Your task to perform on an android device: Search for sushi restaurants on Maps Image 0: 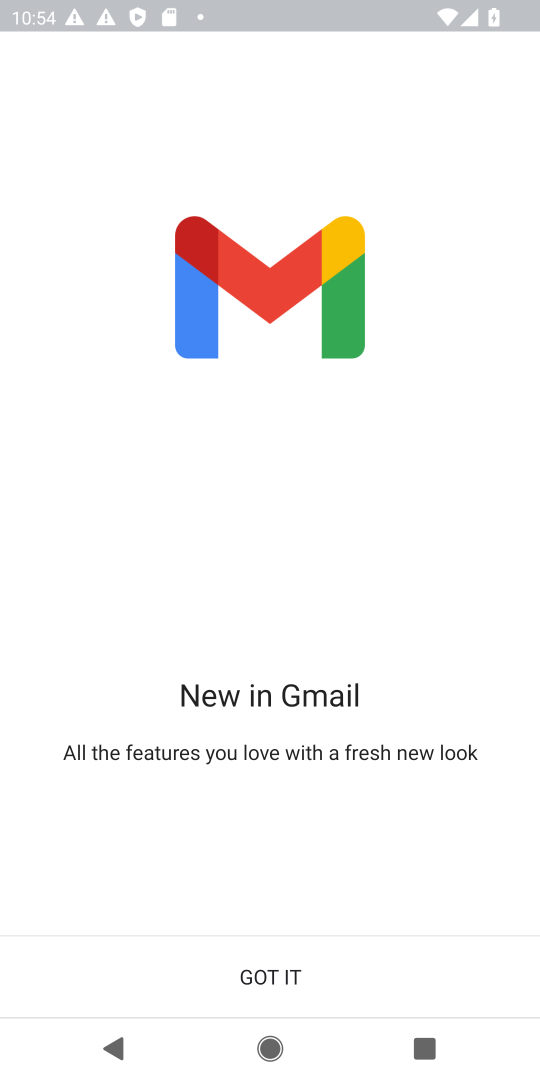
Step 0: press home button
Your task to perform on an android device: Search for sushi restaurants on Maps Image 1: 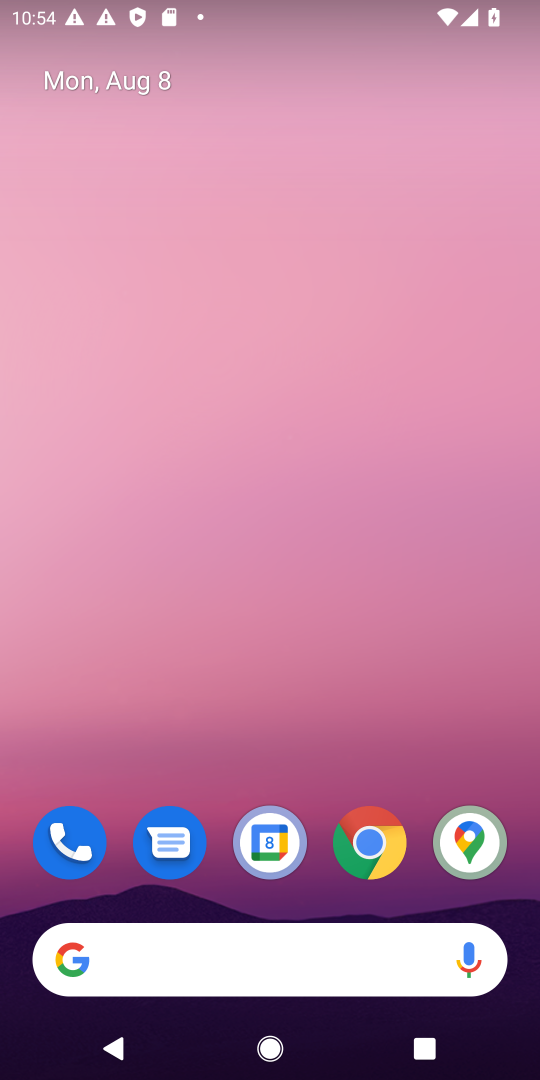
Step 1: click (440, 844)
Your task to perform on an android device: Search for sushi restaurants on Maps Image 2: 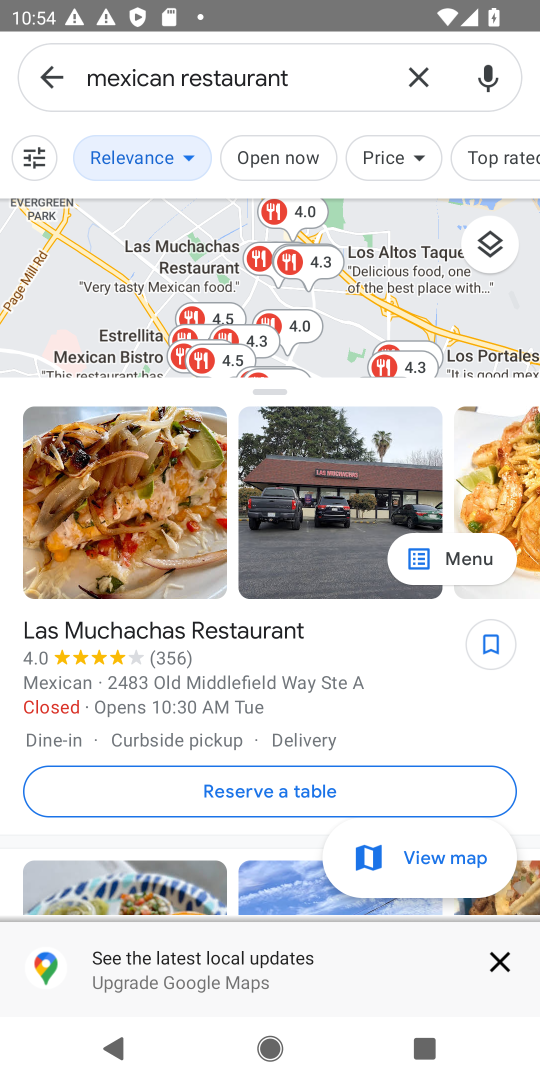
Step 2: click (414, 81)
Your task to perform on an android device: Search for sushi restaurants on Maps Image 3: 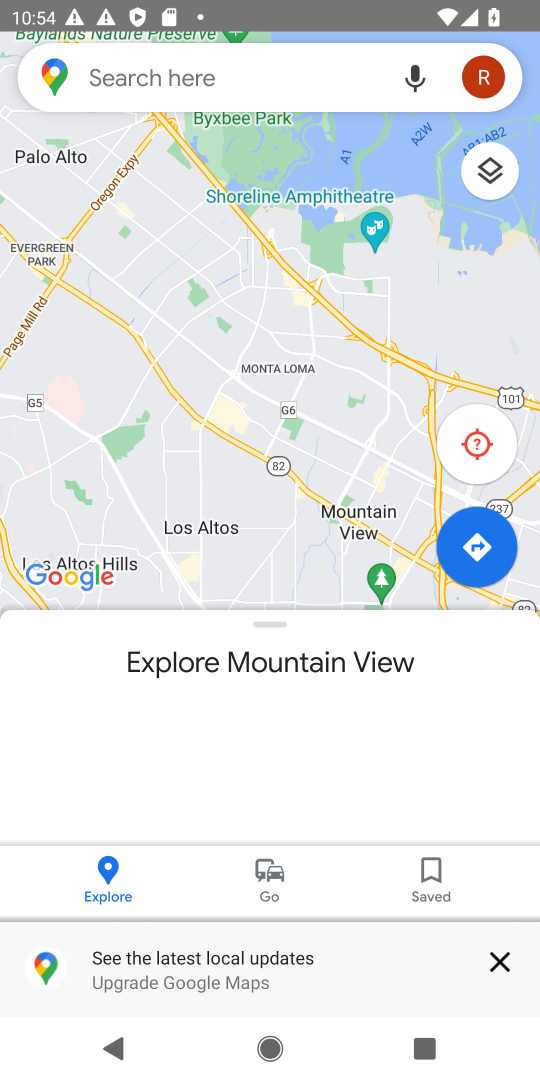
Step 3: click (201, 85)
Your task to perform on an android device: Search for sushi restaurants on Maps Image 4: 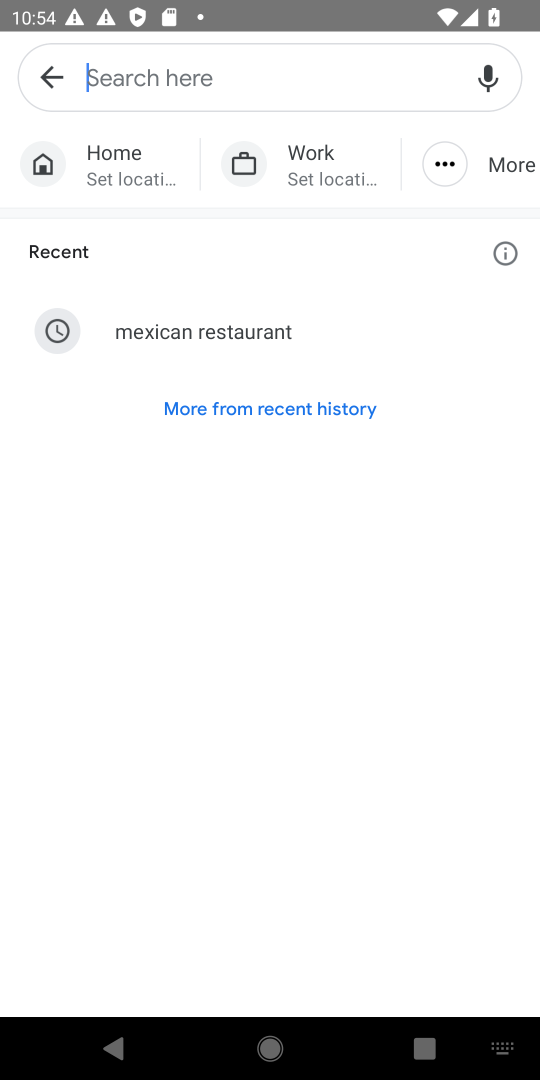
Step 4: type "sushi"
Your task to perform on an android device: Search for sushi restaurants on Maps Image 5: 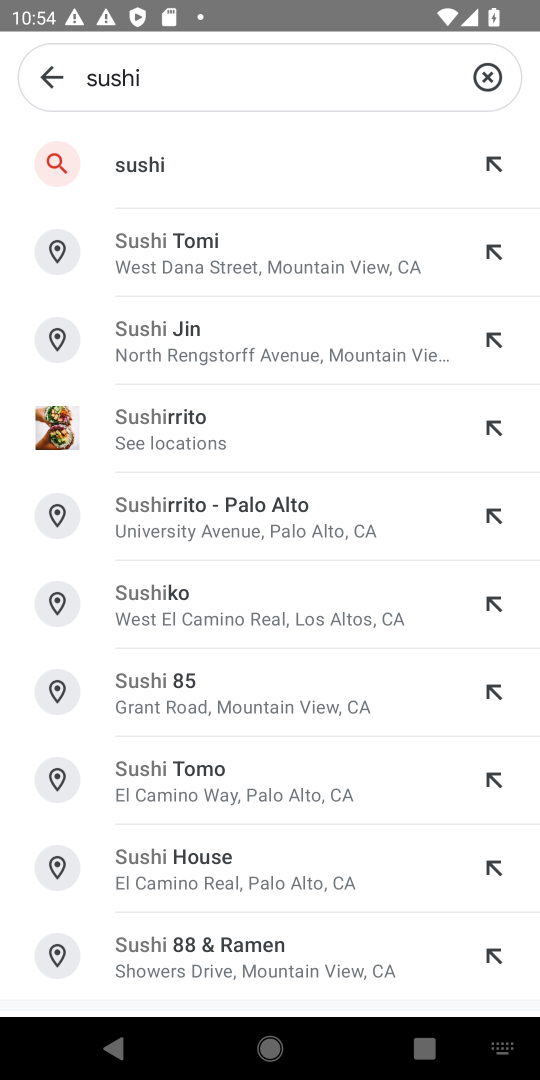
Step 5: type " restaurant"
Your task to perform on an android device: Search for sushi restaurants on Maps Image 6: 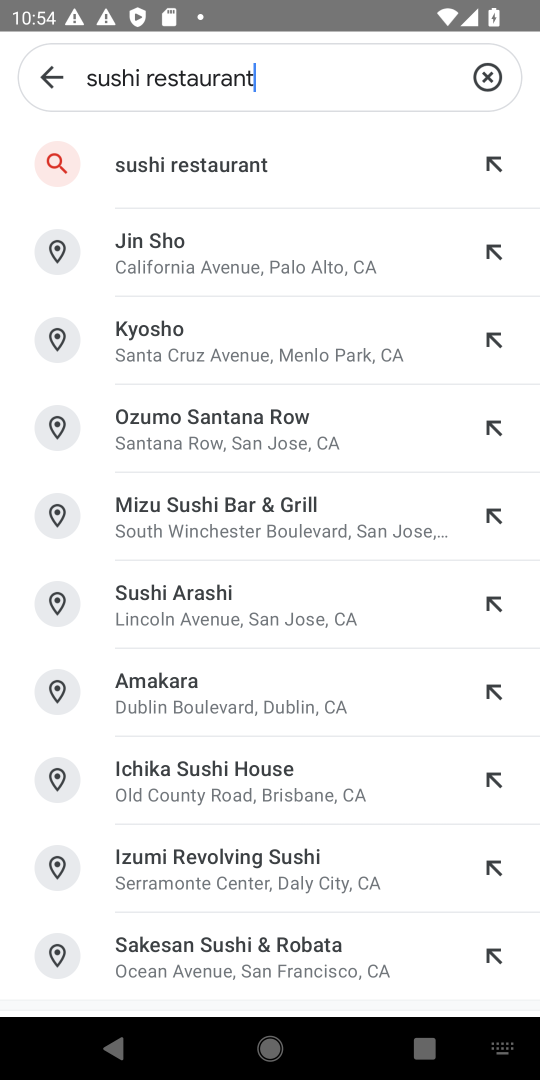
Step 6: click (278, 170)
Your task to perform on an android device: Search for sushi restaurants on Maps Image 7: 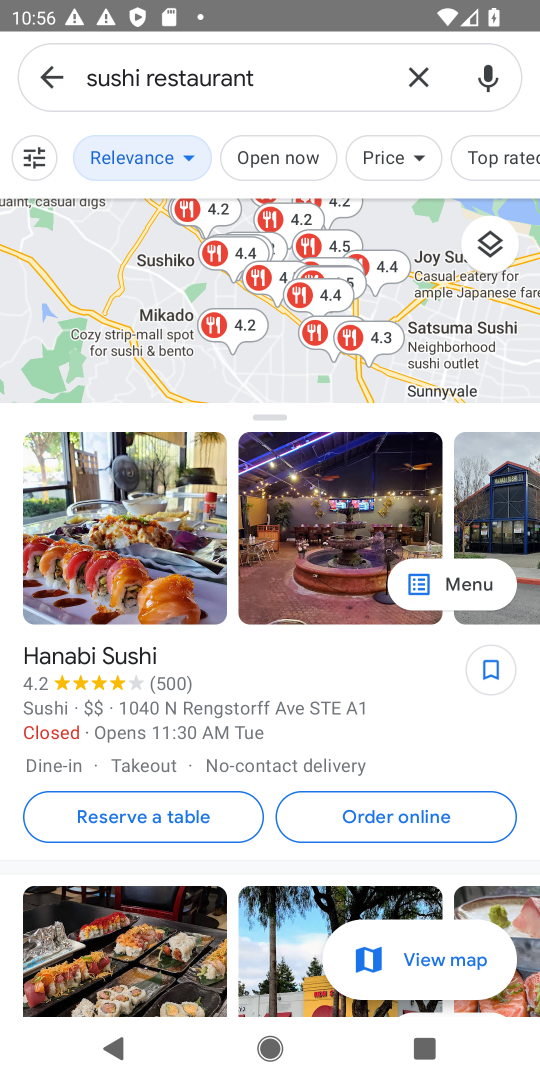
Step 7: task complete